Your task to perform on an android device: Open Google Maps and go to "Timeline" Image 0: 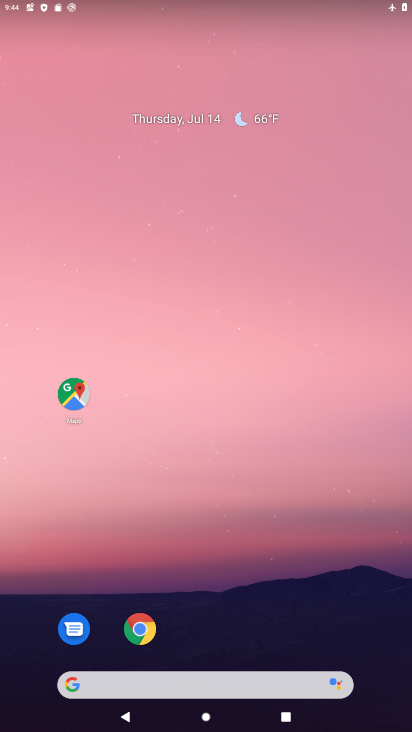
Step 0: press home button
Your task to perform on an android device: Open Google Maps and go to "Timeline" Image 1: 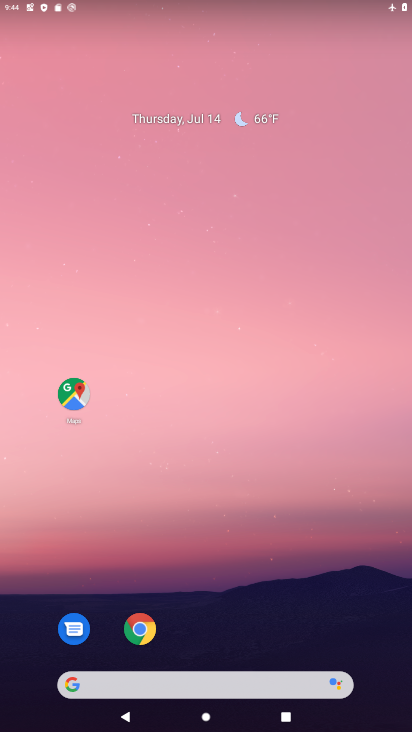
Step 1: click (74, 387)
Your task to perform on an android device: Open Google Maps and go to "Timeline" Image 2: 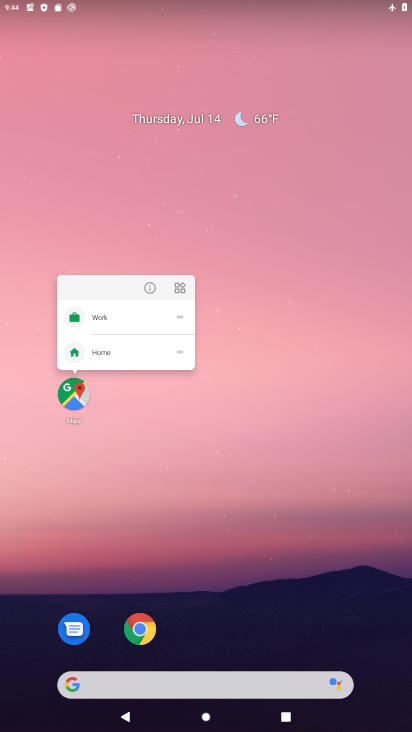
Step 2: click (79, 394)
Your task to perform on an android device: Open Google Maps and go to "Timeline" Image 3: 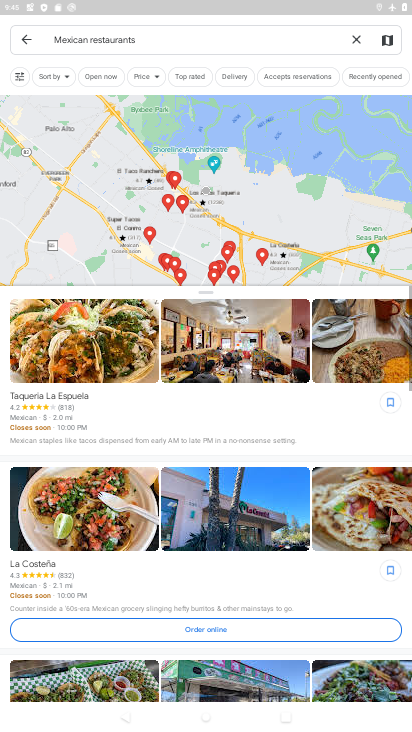
Step 3: click (29, 43)
Your task to perform on an android device: Open Google Maps and go to "Timeline" Image 4: 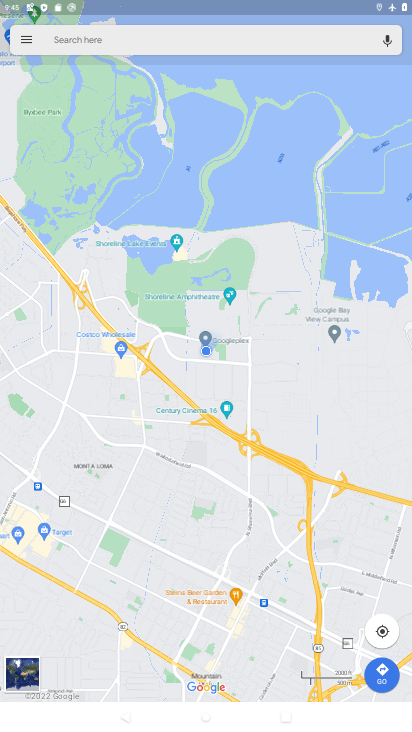
Step 4: click (27, 43)
Your task to perform on an android device: Open Google Maps and go to "Timeline" Image 5: 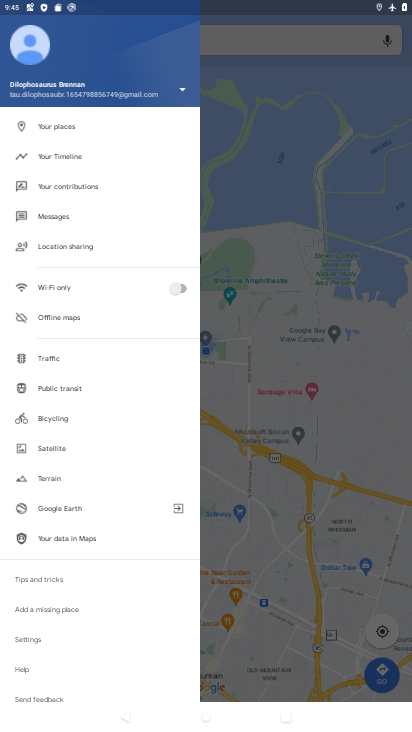
Step 5: click (66, 156)
Your task to perform on an android device: Open Google Maps and go to "Timeline" Image 6: 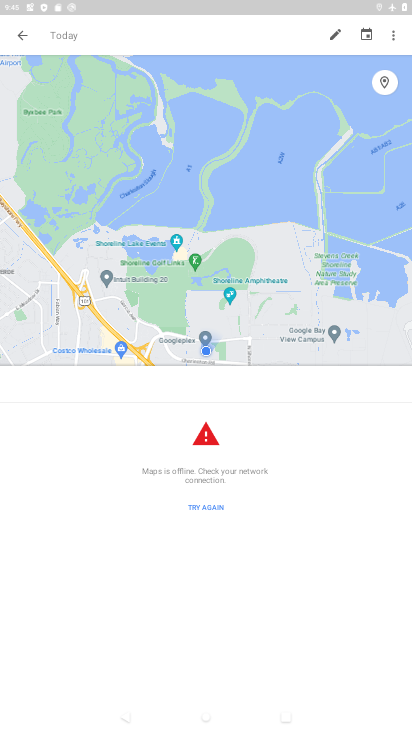
Step 6: task complete